Your task to perform on an android device: set default search engine in the chrome app Image 0: 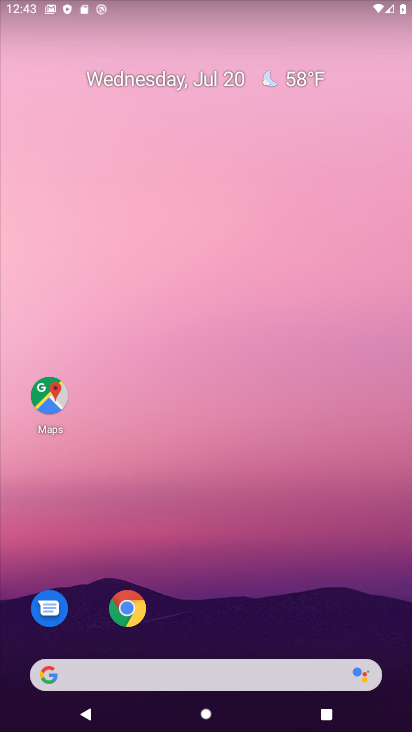
Step 0: click (132, 613)
Your task to perform on an android device: set default search engine in the chrome app Image 1: 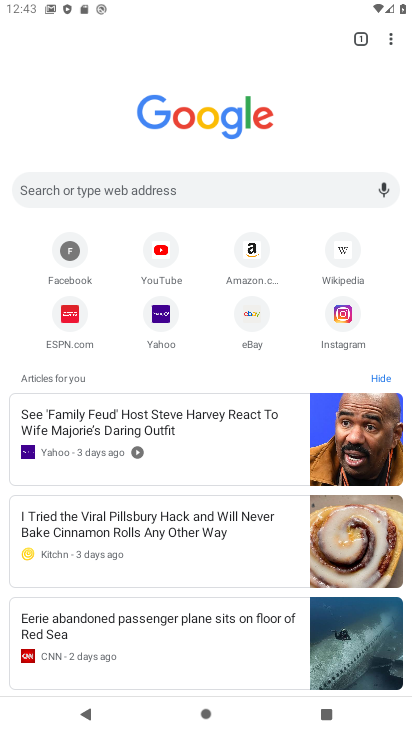
Step 1: click (391, 42)
Your task to perform on an android device: set default search engine in the chrome app Image 2: 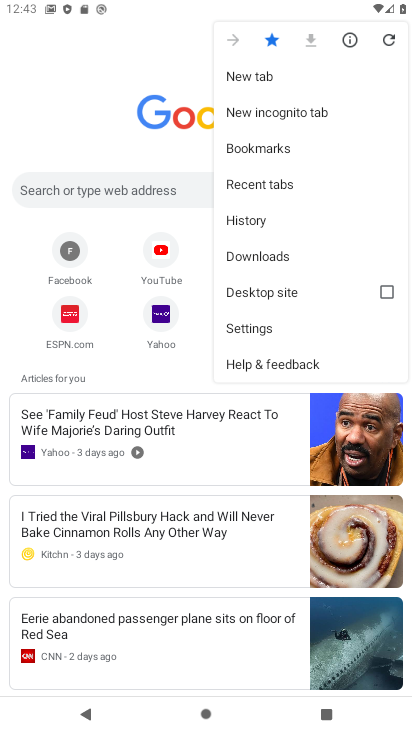
Step 2: click (254, 322)
Your task to perform on an android device: set default search engine in the chrome app Image 3: 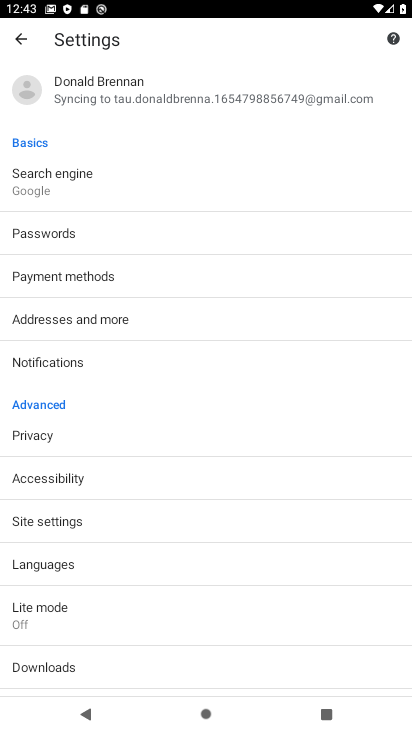
Step 3: click (49, 180)
Your task to perform on an android device: set default search engine in the chrome app Image 4: 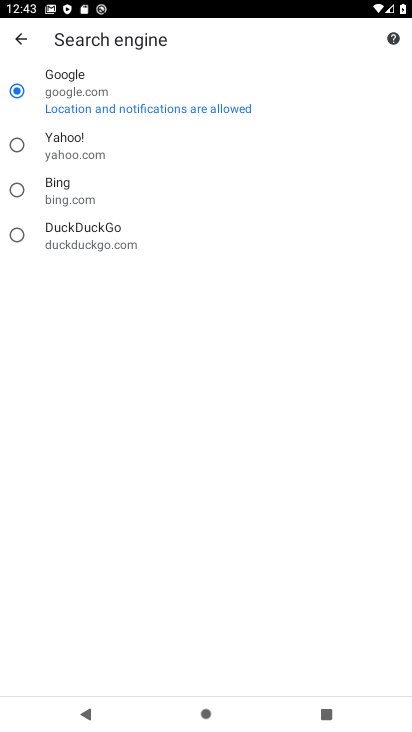
Step 4: click (20, 144)
Your task to perform on an android device: set default search engine in the chrome app Image 5: 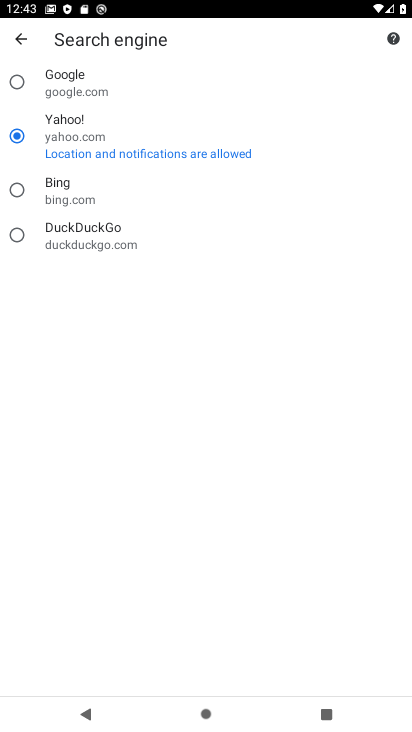
Step 5: task complete